Your task to perform on an android device: find which apps use the phone's location Image 0: 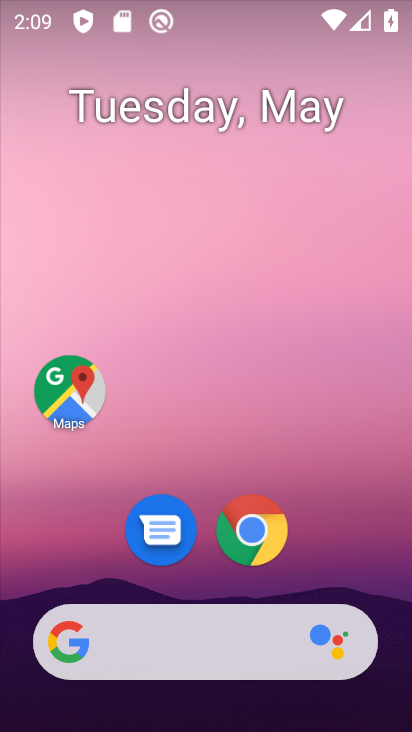
Step 0: drag from (62, 507) to (206, 218)
Your task to perform on an android device: find which apps use the phone's location Image 1: 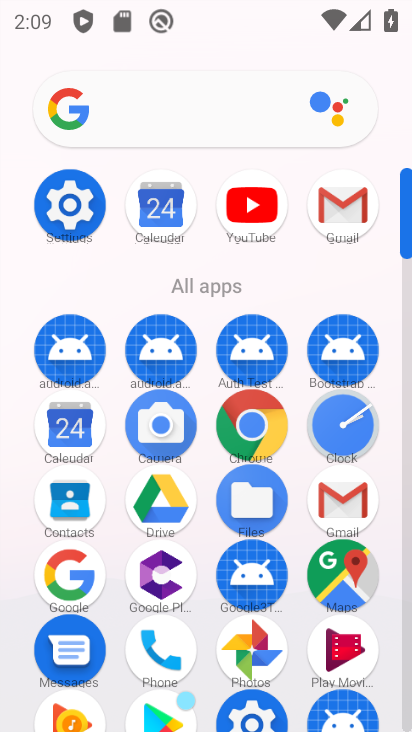
Step 1: click (84, 204)
Your task to perform on an android device: find which apps use the phone's location Image 2: 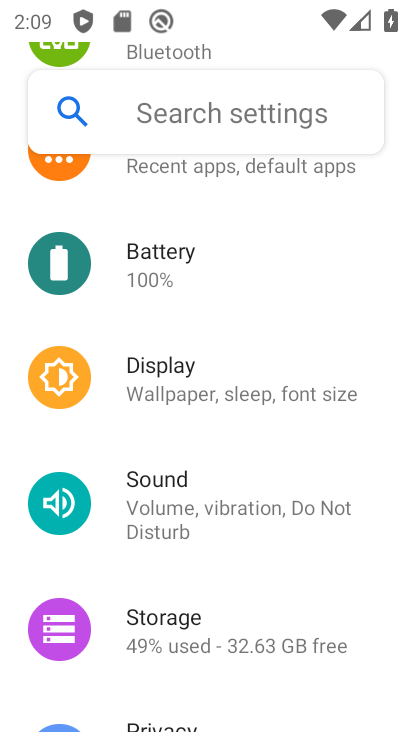
Step 2: drag from (7, 592) to (189, 131)
Your task to perform on an android device: find which apps use the phone's location Image 3: 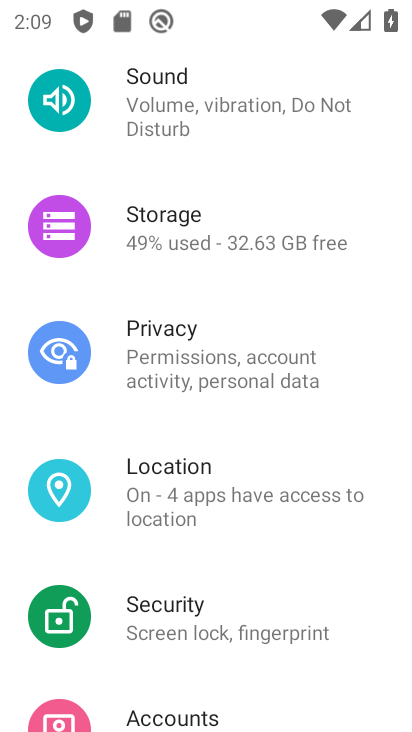
Step 3: click (182, 490)
Your task to perform on an android device: find which apps use the phone's location Image 4: 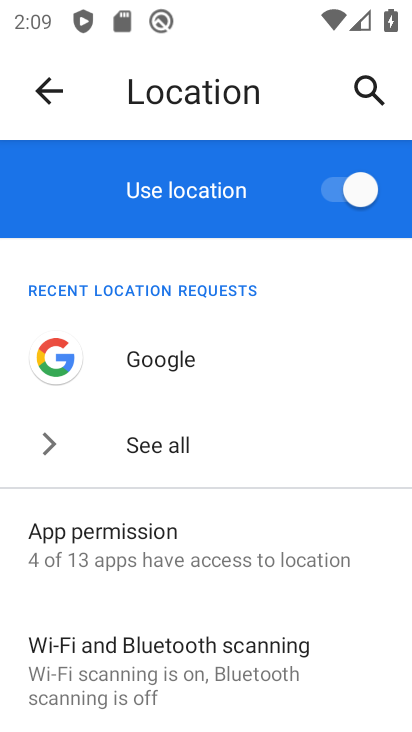
Step 4: click (103, 557)
Your task to perform on an android device: find which apps use the phone's location Image 5: 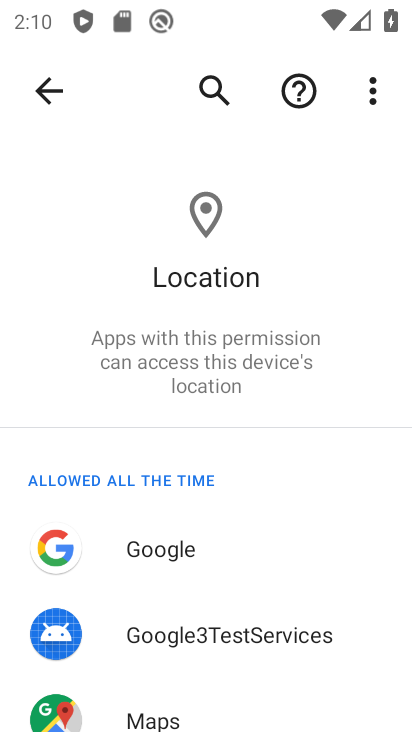
Step 5: task complete